Your task to perform on an android device: Open Maps and search for coffee Image 0: 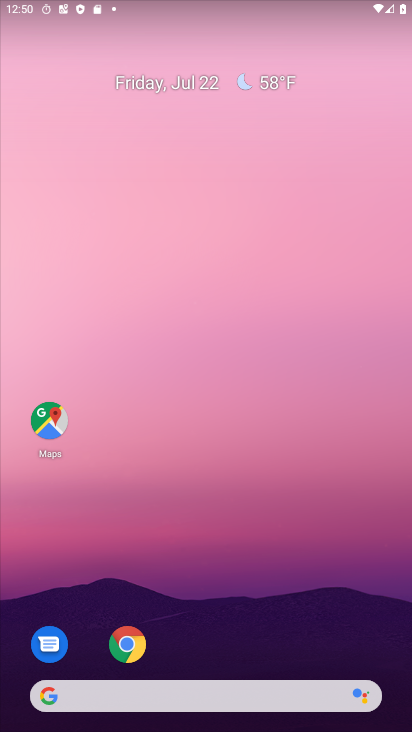
Step 0: click (307, 5)
Your task to perform on an android device: Open Maps and search for coffee Image 1: 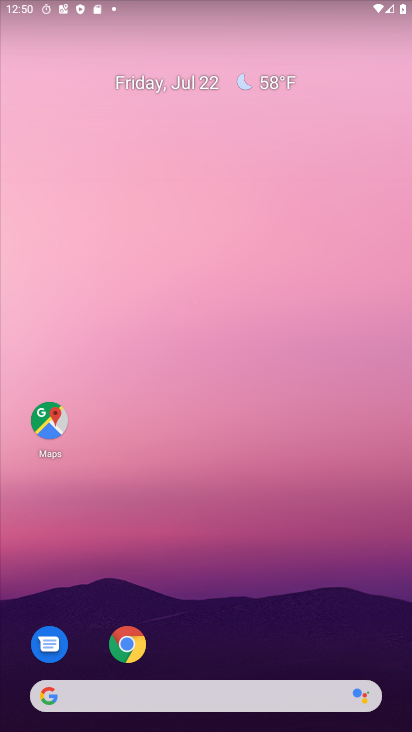
Step 1: drag from (186, 645) to (235, 125)
Your task to perform on an android device: Open Maps and search for coffee Image 2: 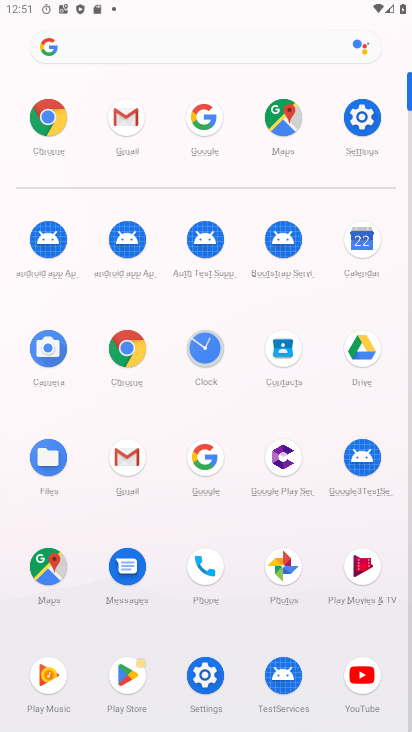
Step 2: click (44, 571)
Your task to perform on an android device: Open Maps and search for coffee Image 3: 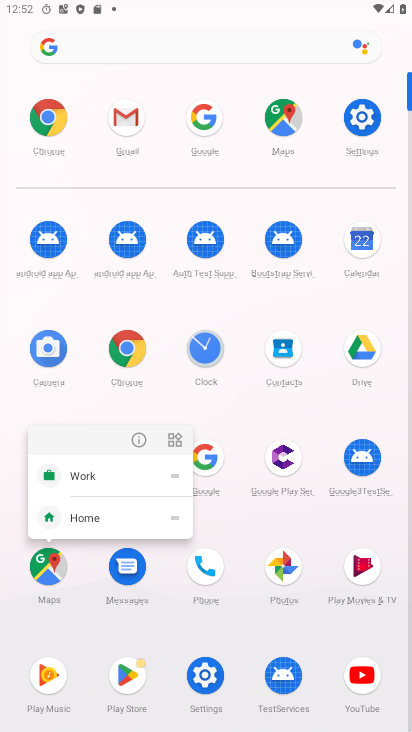
Step 3: click (147, 445)
Your task to perform on an android device: Open Maps and search for coffee Image 4: 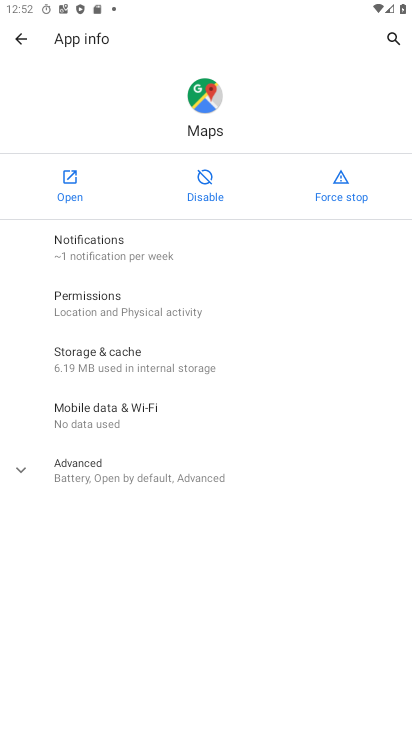
Step 4: click (58, 171)
Your task to perform on an android device: Open Maps and search for coffee Image 5: 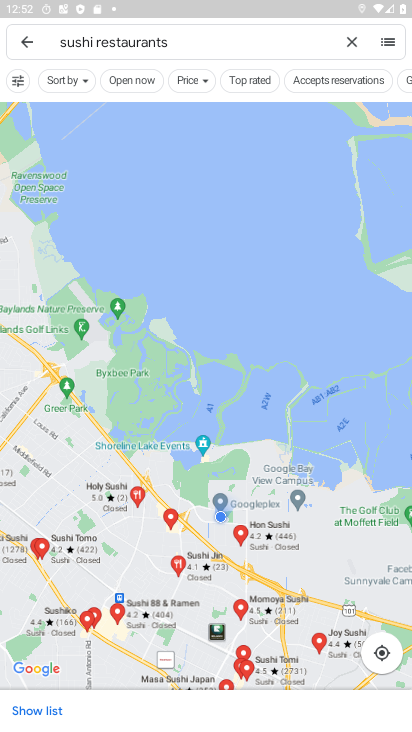
Step 5: drag from (264, 557) to (300, 292)
Your task to perform on an android device: Open Maps and search for coffee Image 6: 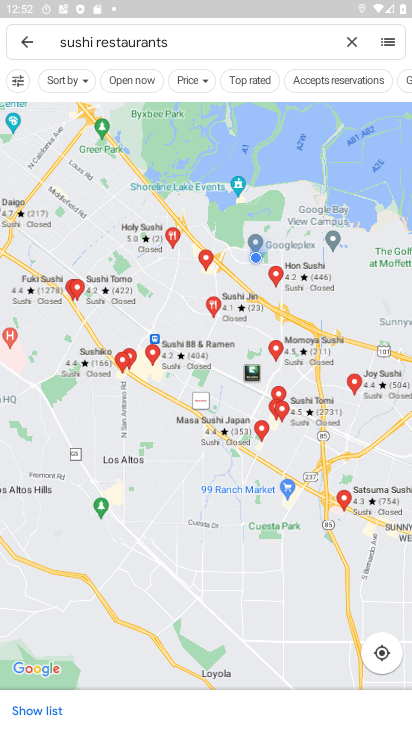
Step 6: click (351, 38)
Your task to perform on an android device: Open Maps and search for coffee Image 7: 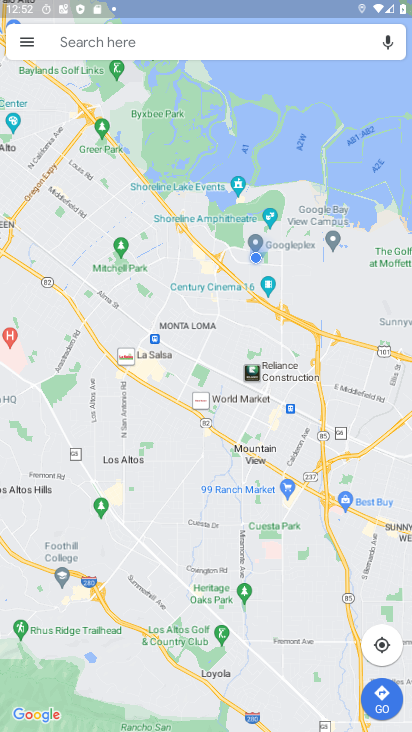
Step 7: type "coffee"
Your task to perform on an android device: Open Maps and search for coffee Image 8: 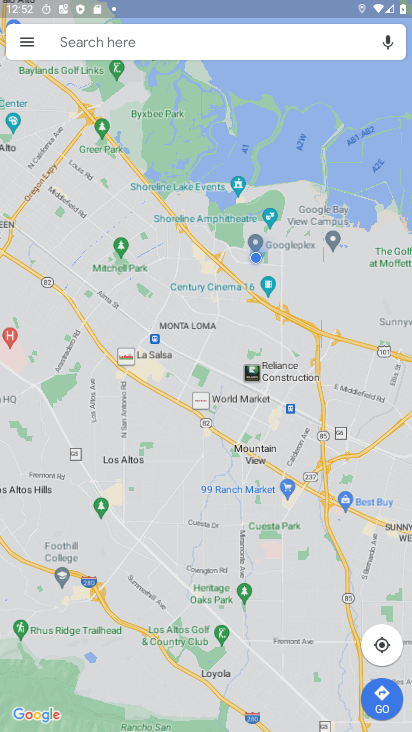
Step 8: drag from (186, 443) to (264, 148)
Your task to perform on an android device: Open Maps and search for coffee Image 9: 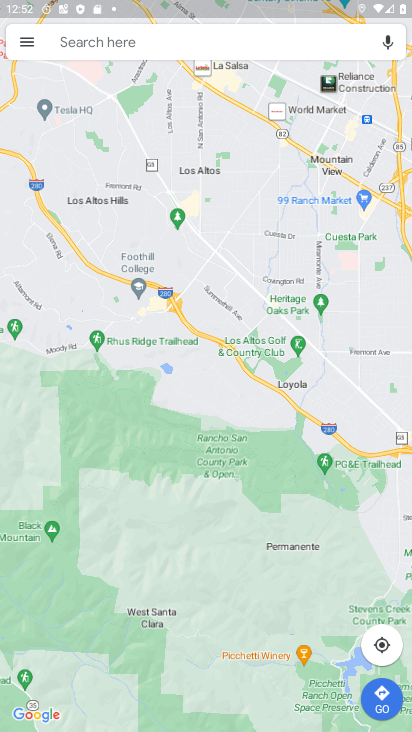
Step 9: drag from (279, 193) to (263, 442)
Your task to perform on an android device: Open Maps and search for coffee Image 10: 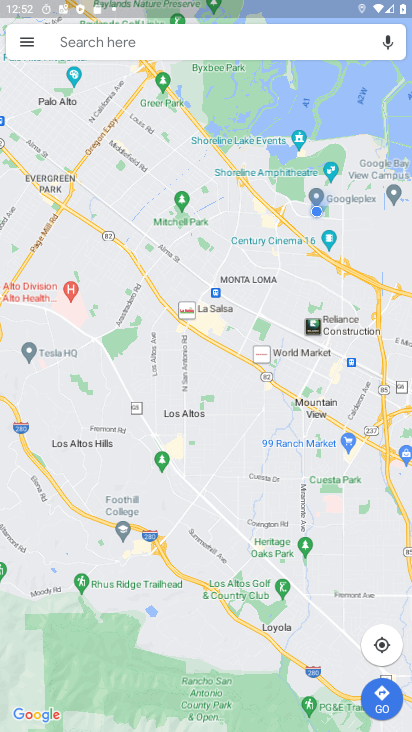
Step 10: click (144, 40)
Your task to perform on an android device: Open Maps and search for coffee Image 11: 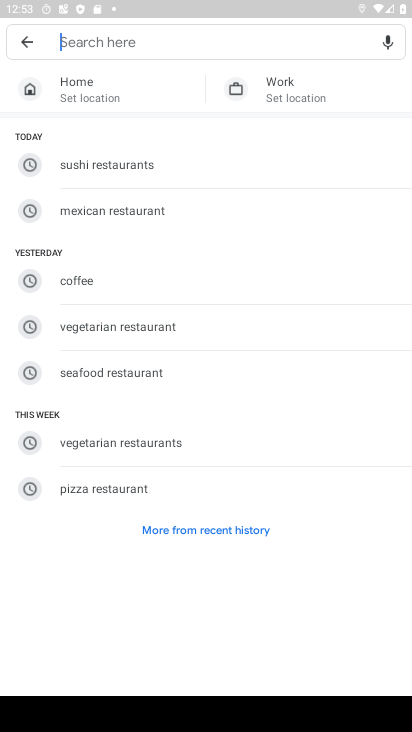
Step 11: click (110, 273)
Your task to perform on an android device: Open Maps and search for coffee Image 12: 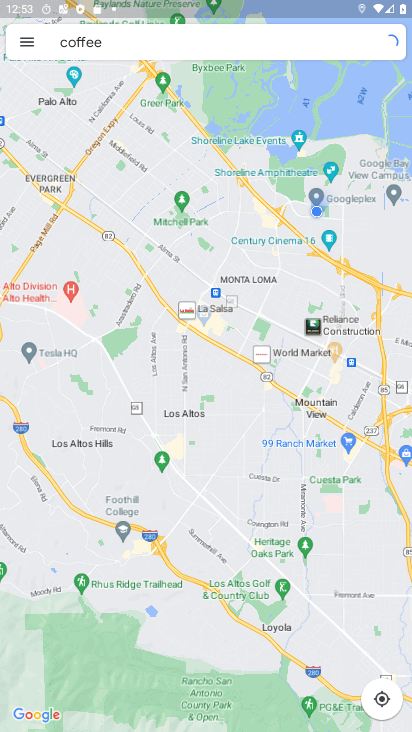
Step 12: task complete